Your task to perform on an android device: toggle data saver in the chrome app Image 0: 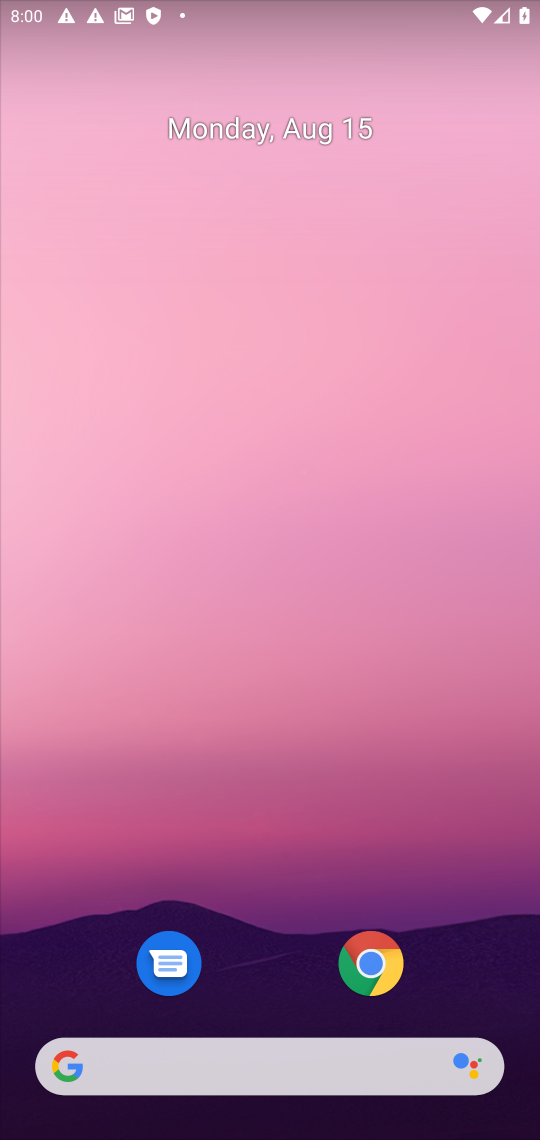
Step 0: click (351, 979)
Your task to perform on an android device: toggle data saver in the chrome app Image 1: 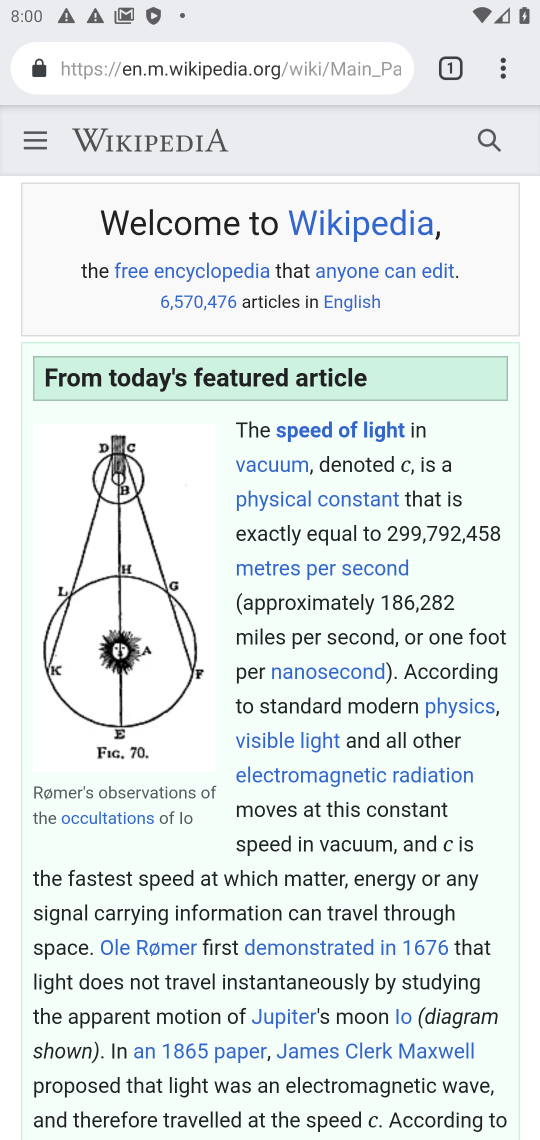
Step 1: click (521, 70)
Your task to perform on an android device: toggle data saver in the chrome app Image 2: 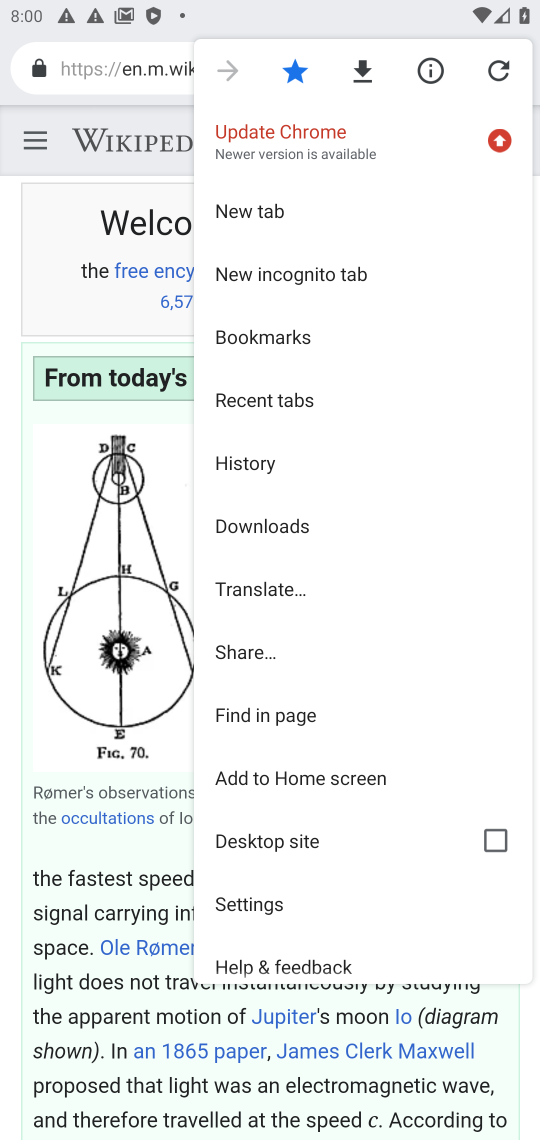
Step 2: click (290, 906)
Your task to perform on an android device: toggle data saver in the chrome app Image 3: 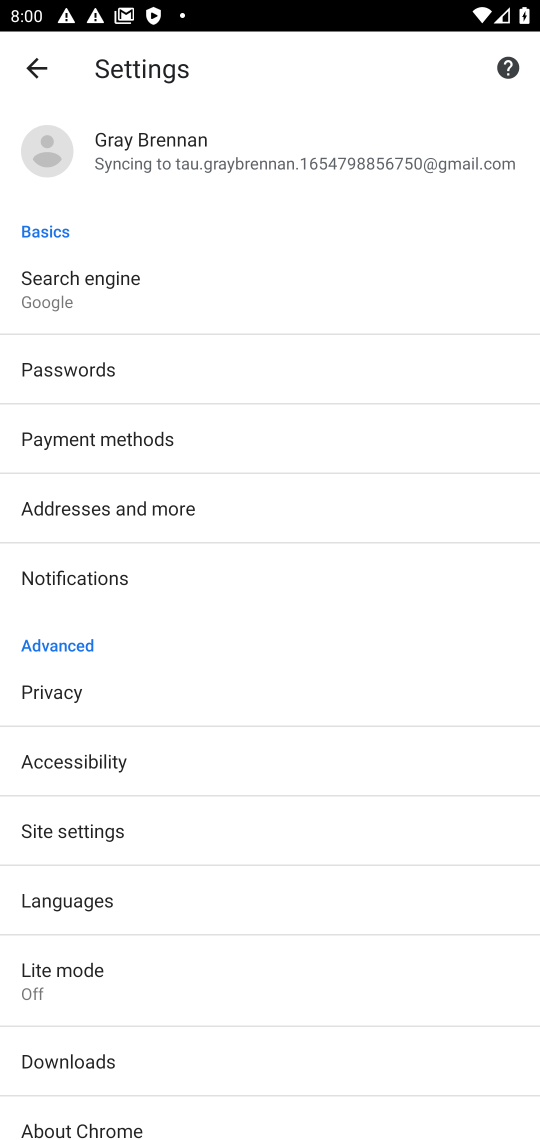
Step 3: click (185, 945)
Your task to perform on an android device: toggle data saver in the chrome app Image 4: 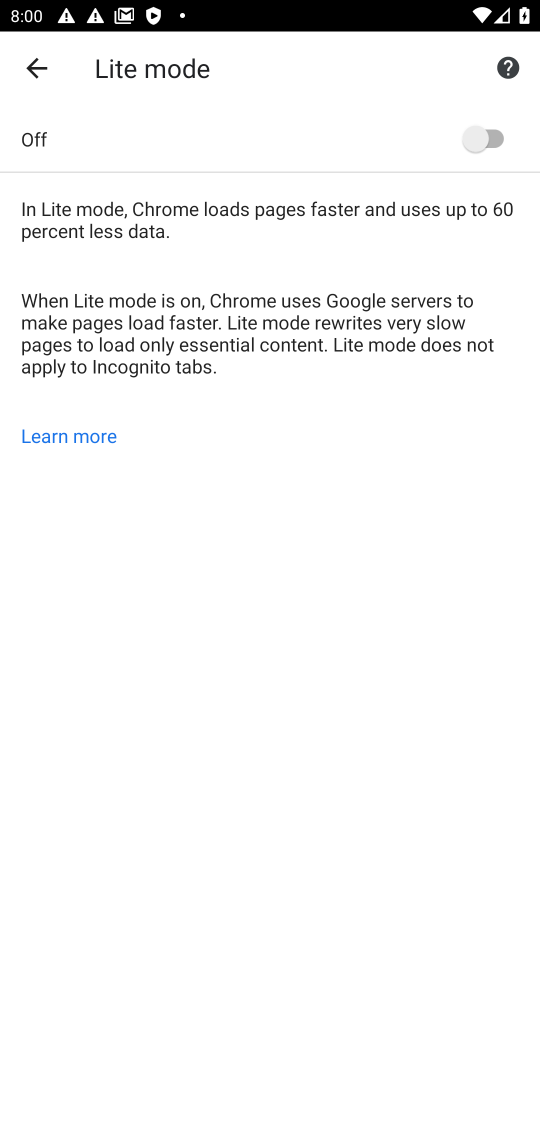
Step 4: click (503, 143)
Your task to perform on an android device: toggle data saver in the chrome app Image 5: 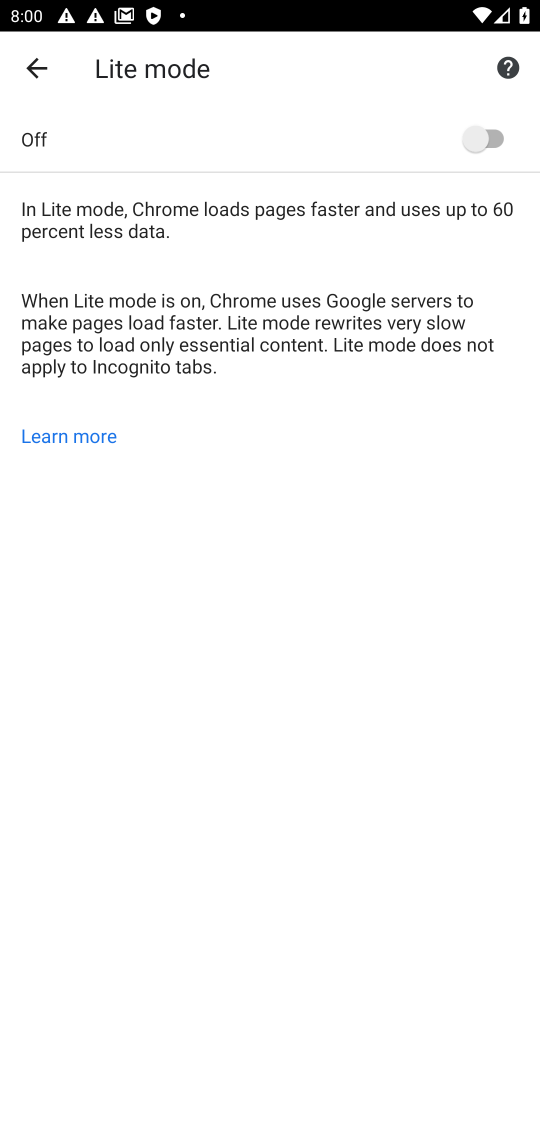
Step 5: click (503, 143)
Your task to perform on an android device: toggle data saver in the chrome app Image 6: 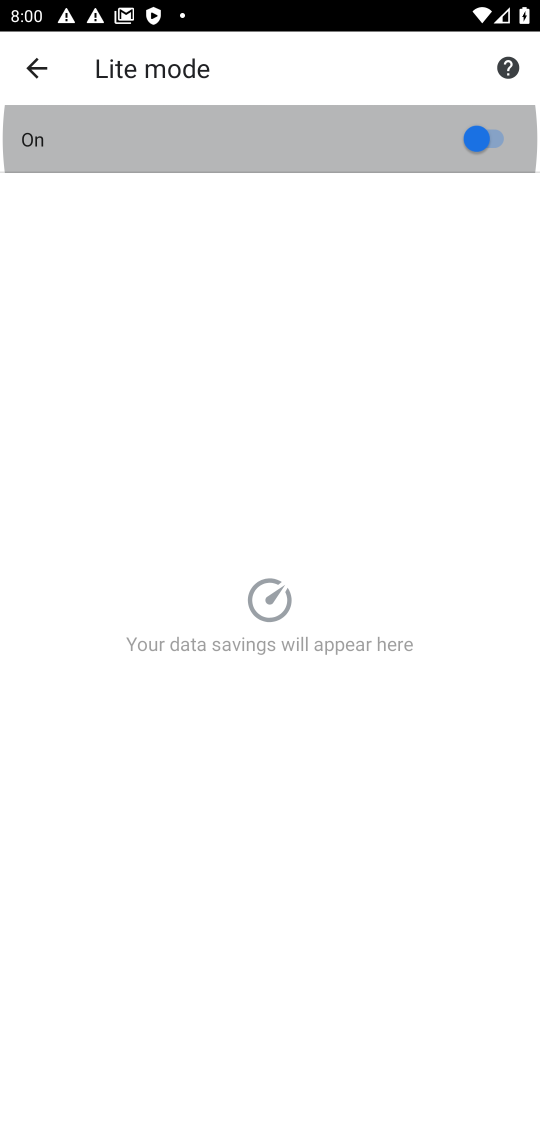
Step 6: click (503, 143)
Your task to perform on an android device: toggle data saver in the chrome app Image 7: 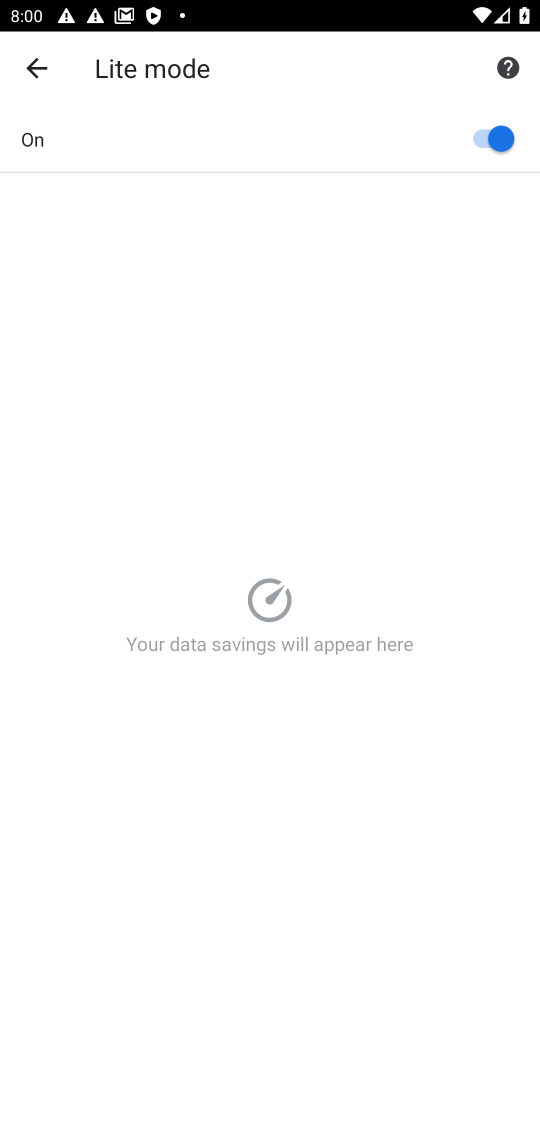
Step 7: click (503, 143)
Your task to perform on an android device: toggle data saver in the chrome app Image 8: 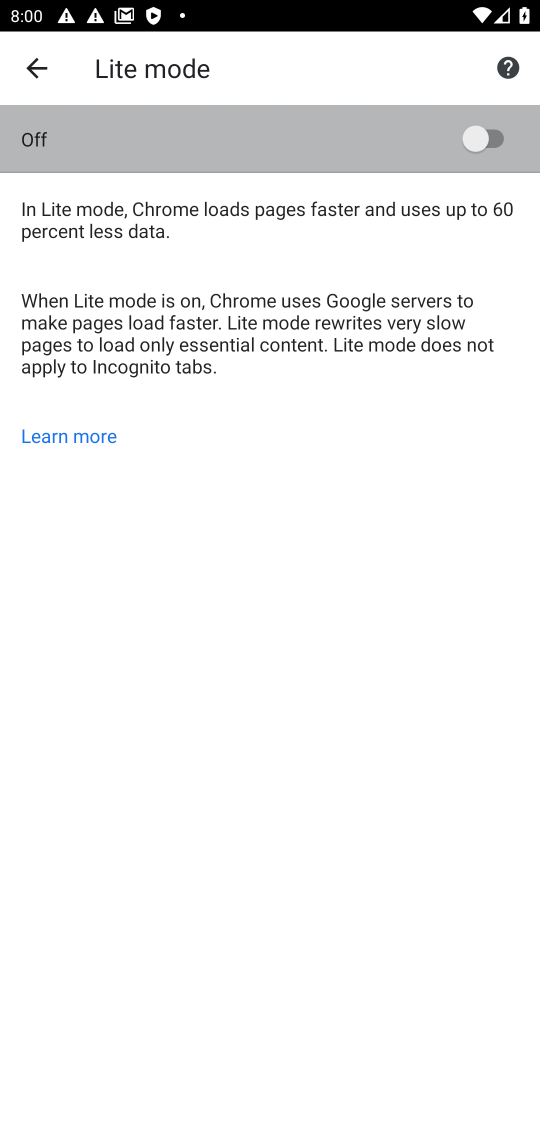
Step 8: click (503, 143)
Your task to perform on an android device: toggle data saver in the chrome app Image 9: 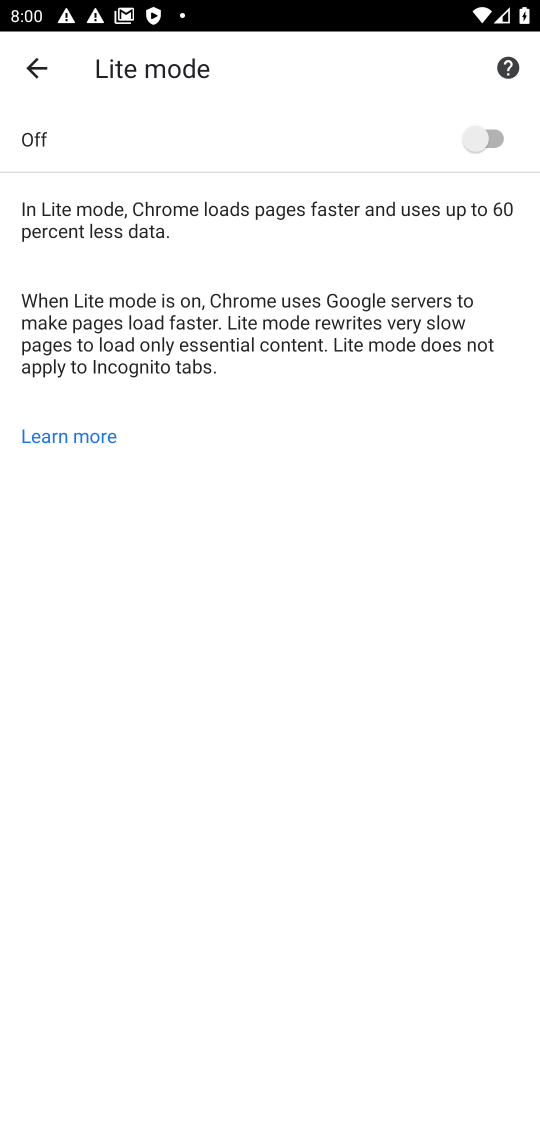
Step 9: task complete